Your task to perform on an android device: Show the shopping cart on ebay.com. Search for "usb-c to usb-a" on ebay.com, select the first entry, add it to the cart, then select checkout. Image 0: 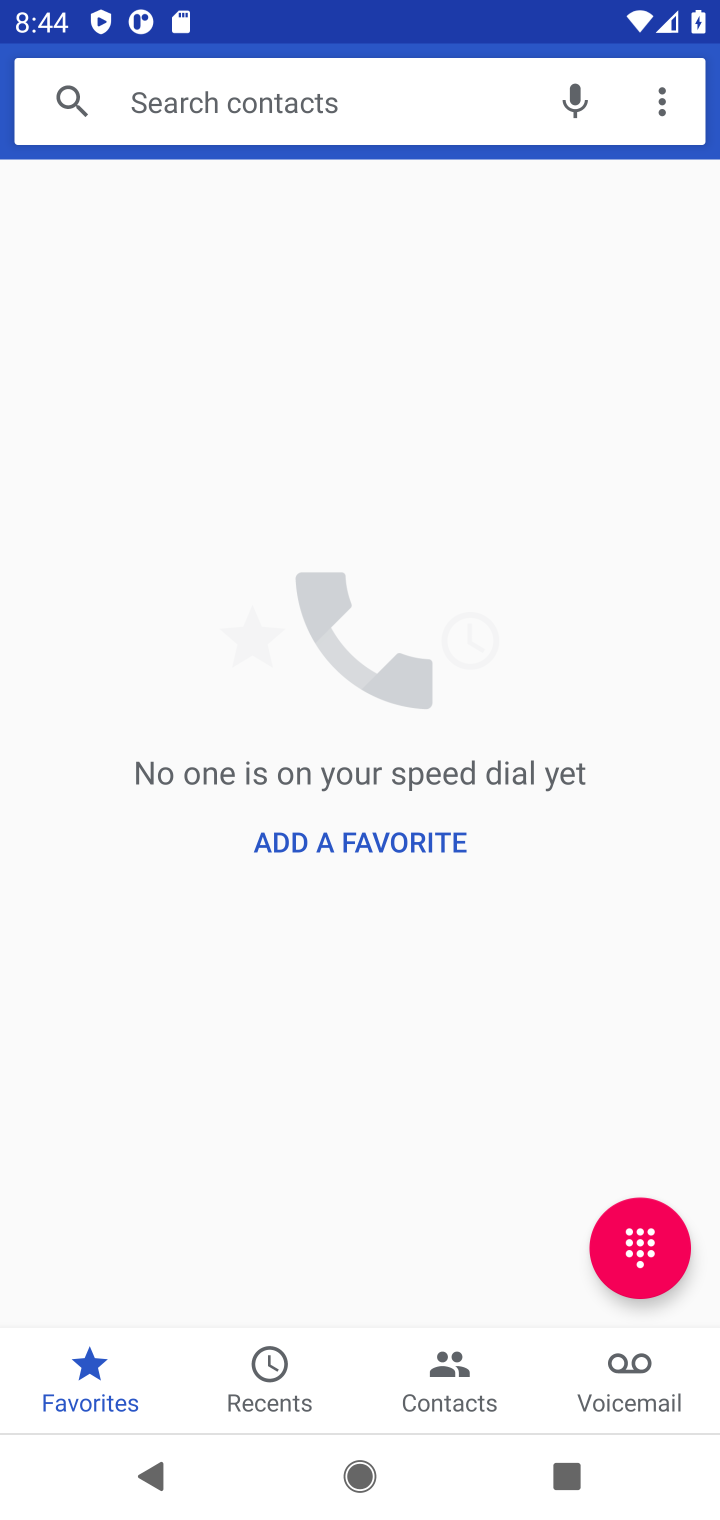
Step 0: press home button
Your task to perform on an android device: Show the shopping cart on ebay.com. Search for "usb-c to usb-a" on ebay.com, select the first entry, add it to the cart, then select checkout. Image 1: 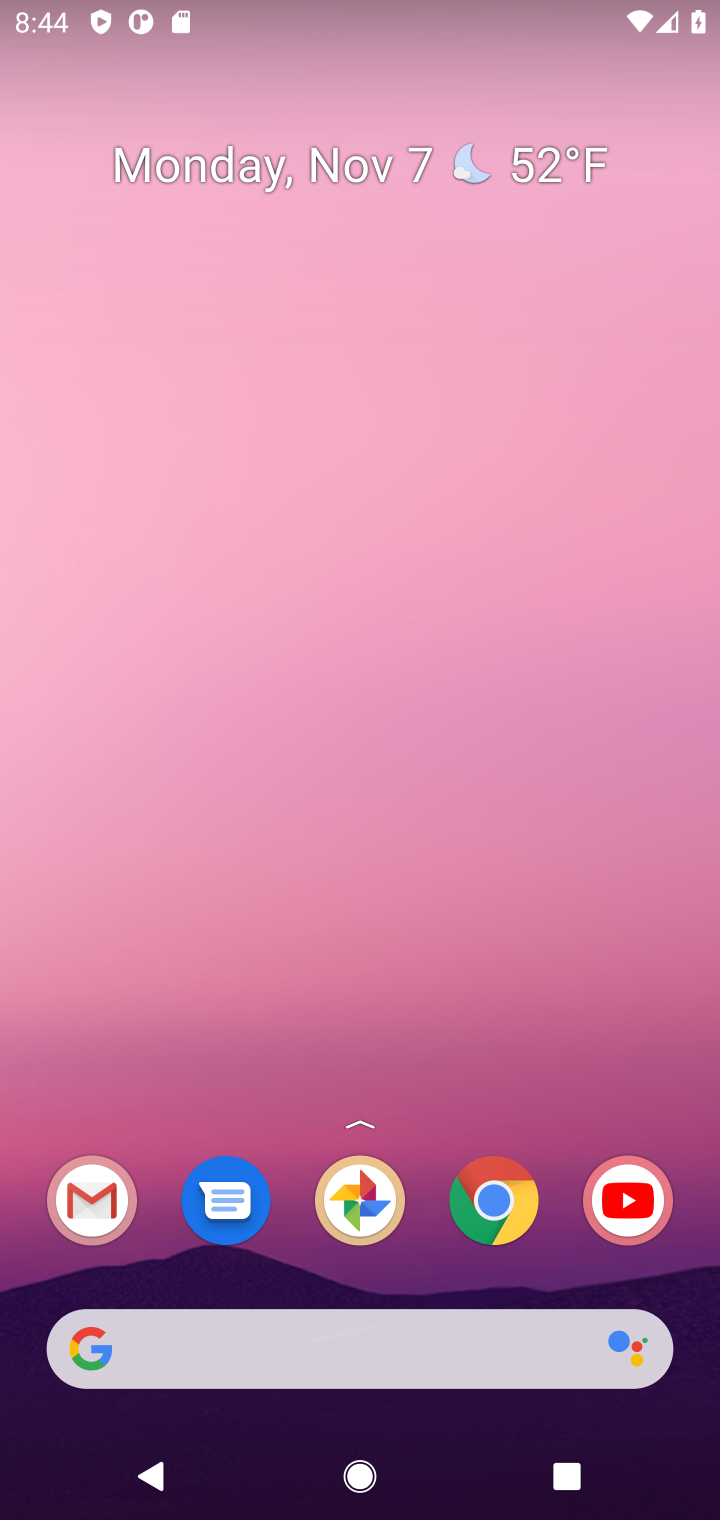
Step 1: click (494, 1220)
Your task to perform on an android device: Show the shopping cart on ebay.com. Search for "usb-c to usb-a" on ebay.com, select the first entry, add it to the cart, then select checkout. Image 2: 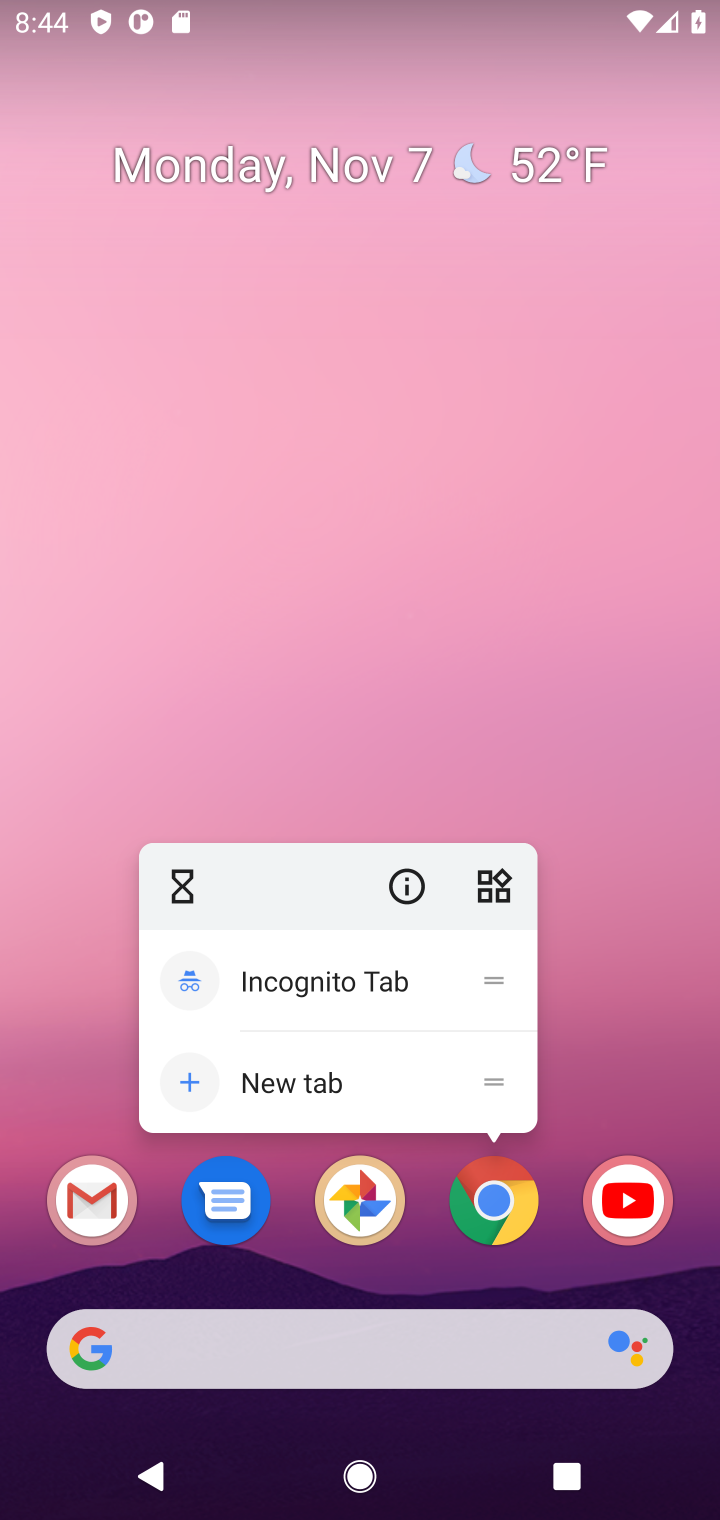
Step 2: click (494, 1196)
Your task to perform on an android device: Show the shopping cart on ebay.com. Search for "usb-c to usb-a" on ebay.com, select the first entry, add it to the cart, then select checkout. Image 3: 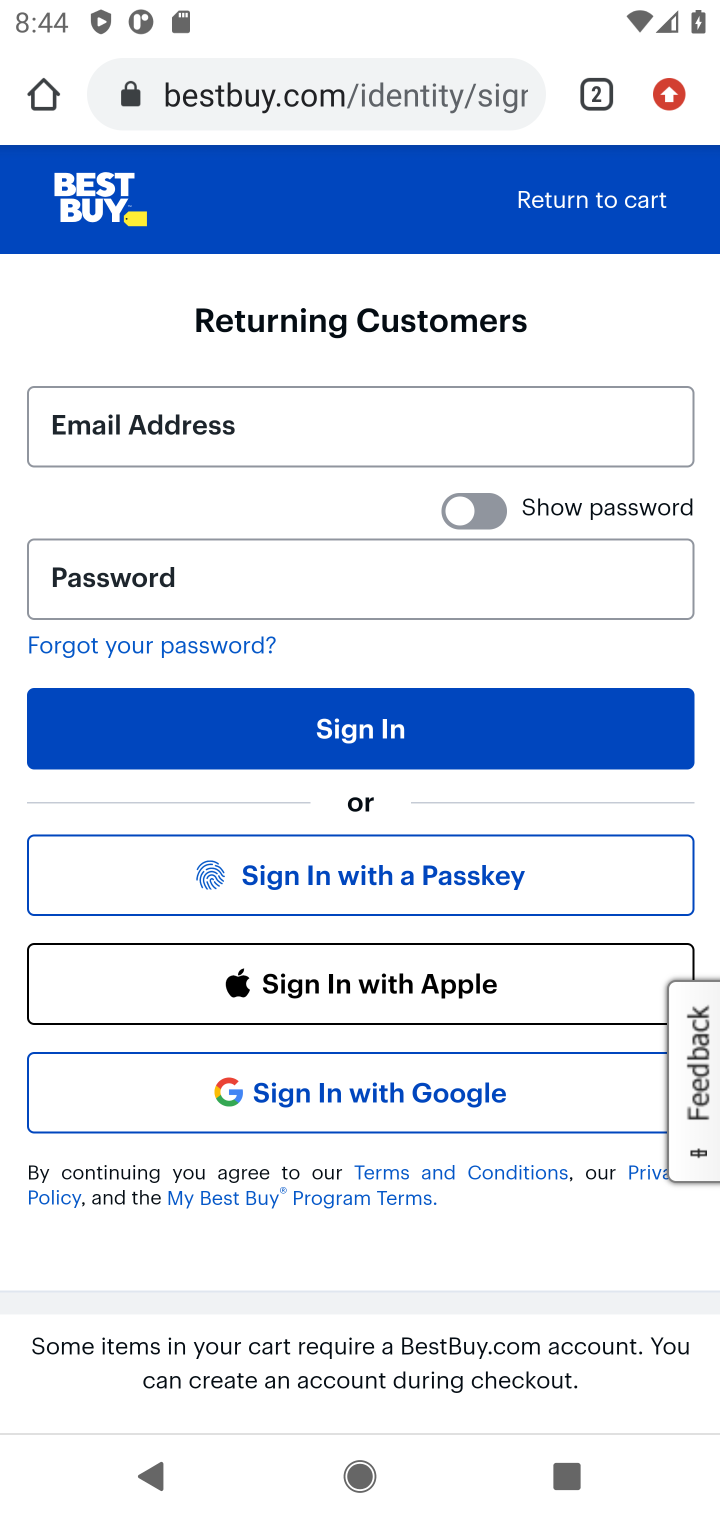
Step 3: click (379, 60)
Your task to perform on an android device: Show the shopping cart on ebay.com. Search for "usb-c to usb-a" on ebay.com, select the first entry, add it to the cart, then select checkout. Image 4: 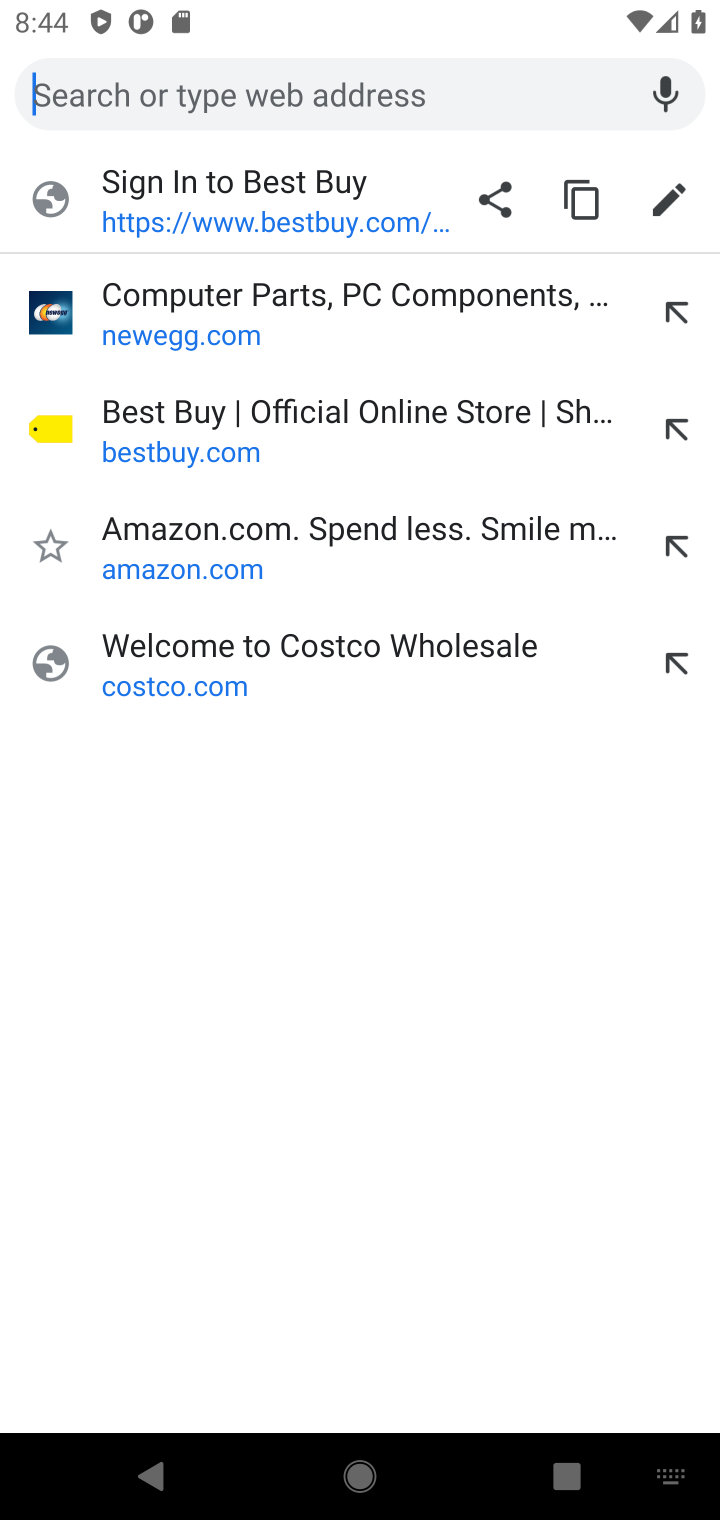
Step 4: type "ebay.com"
Your task to perform on an android device: Show the shopping cart on ebay.com. Search for "usb-c to usb-a" on ebay.com, select the first entry, add it to the cart, then select checkout. Image 5: 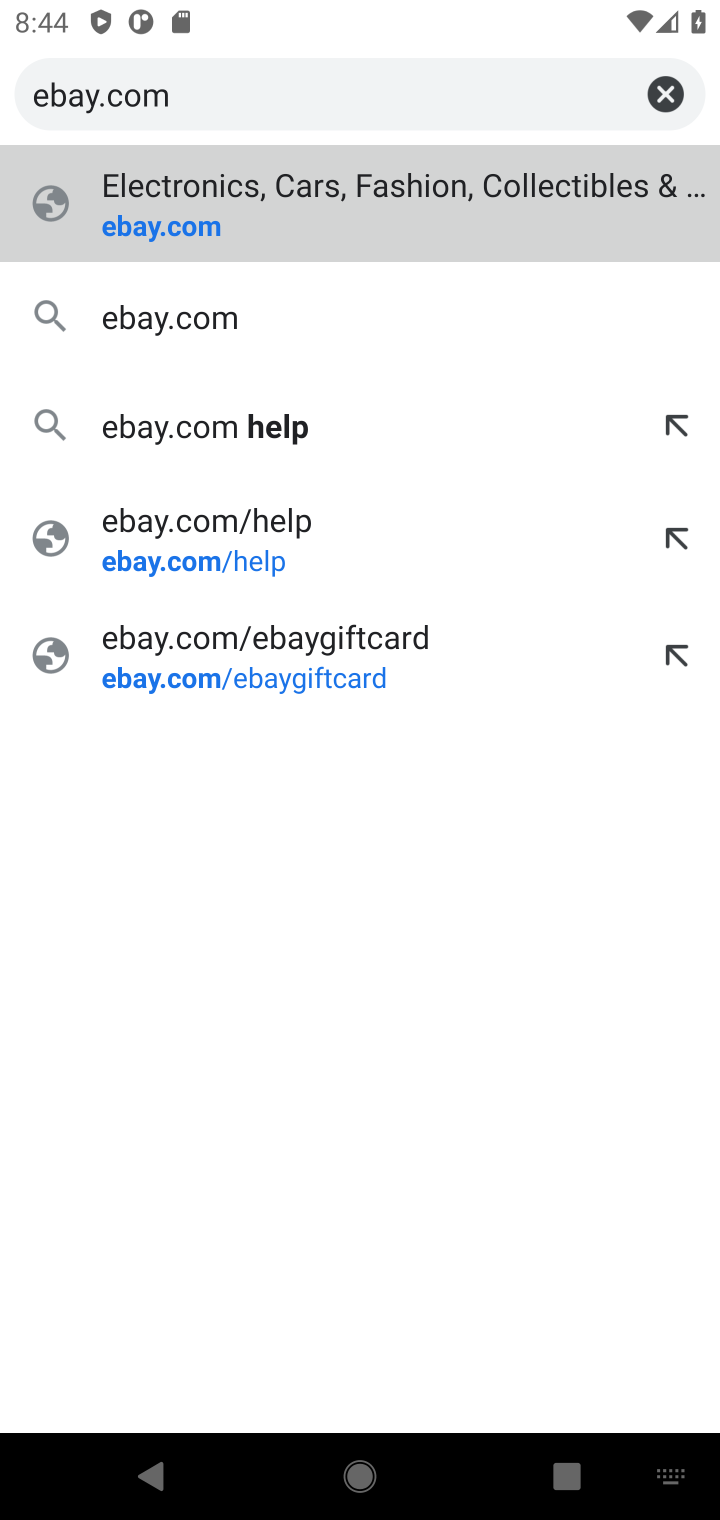
Step 5: press enter
Your task to perform on an android device: Show the shopping cart on ebay.com. Search for "usb-c to usb-a" on ebay.com, select the first entry, add it to the cart, then select checkout. Image 6: 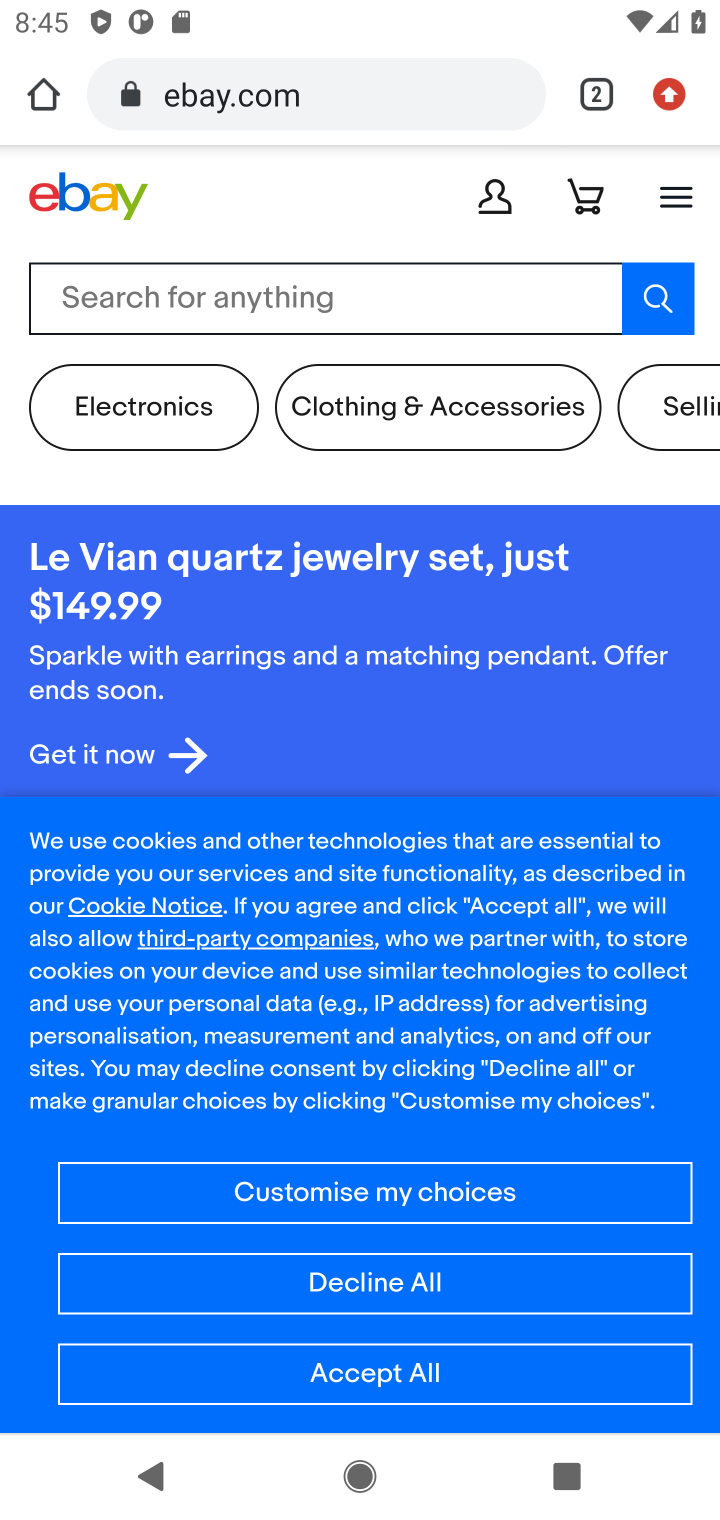
Step 6: click (268, 302)
Your task to perform on an android device: Show the shopping cart on ebay.com. Search for "usb-c to usb-a" on ebay.com, select the first entry, add it to the cart, then select checkout. Image 7: 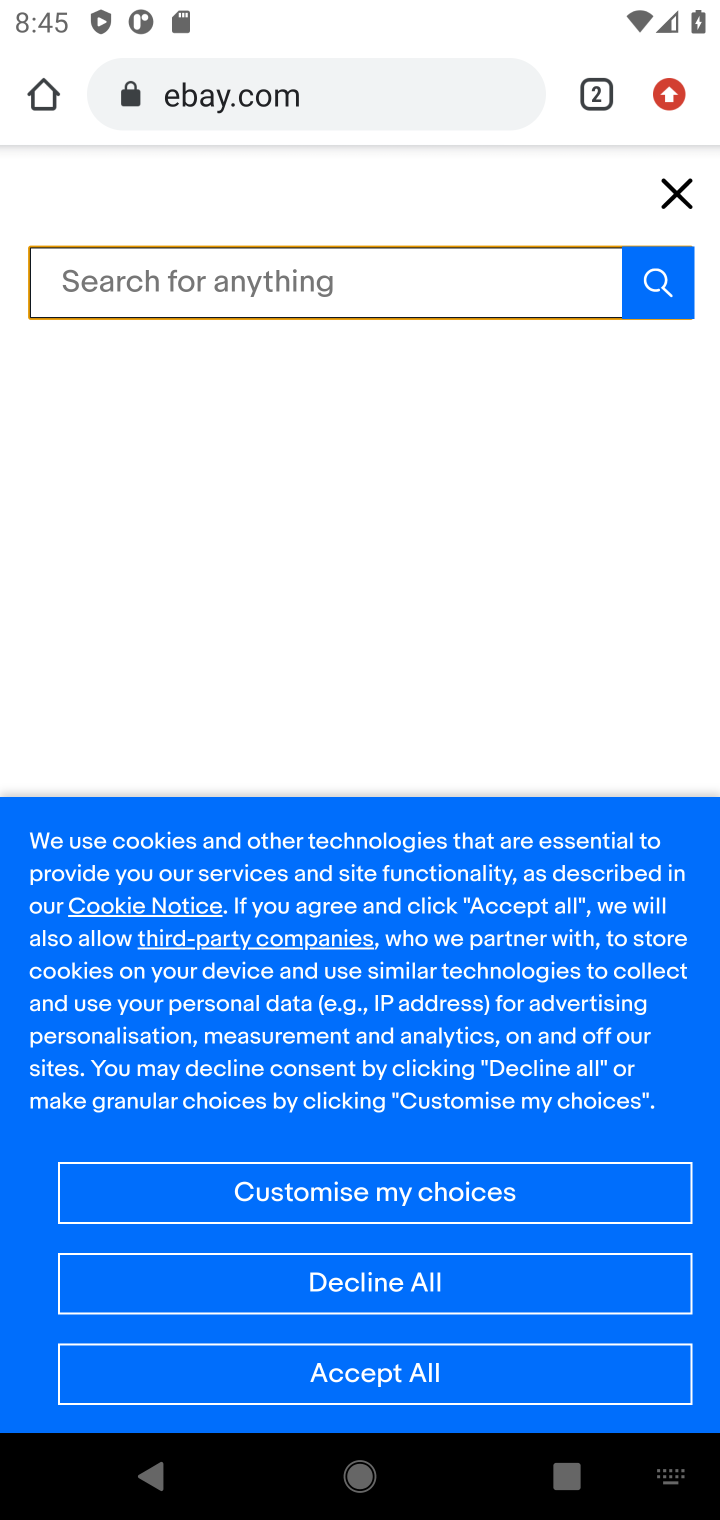
Step 7: type "usb-c to usb-a"
Your task to perform on an android device: Show the shopping cart on ebay.com. Search for "usb-c to usb-a" on ebay.com, select the first entry, add it to the cart, then select checkout. Image 8: 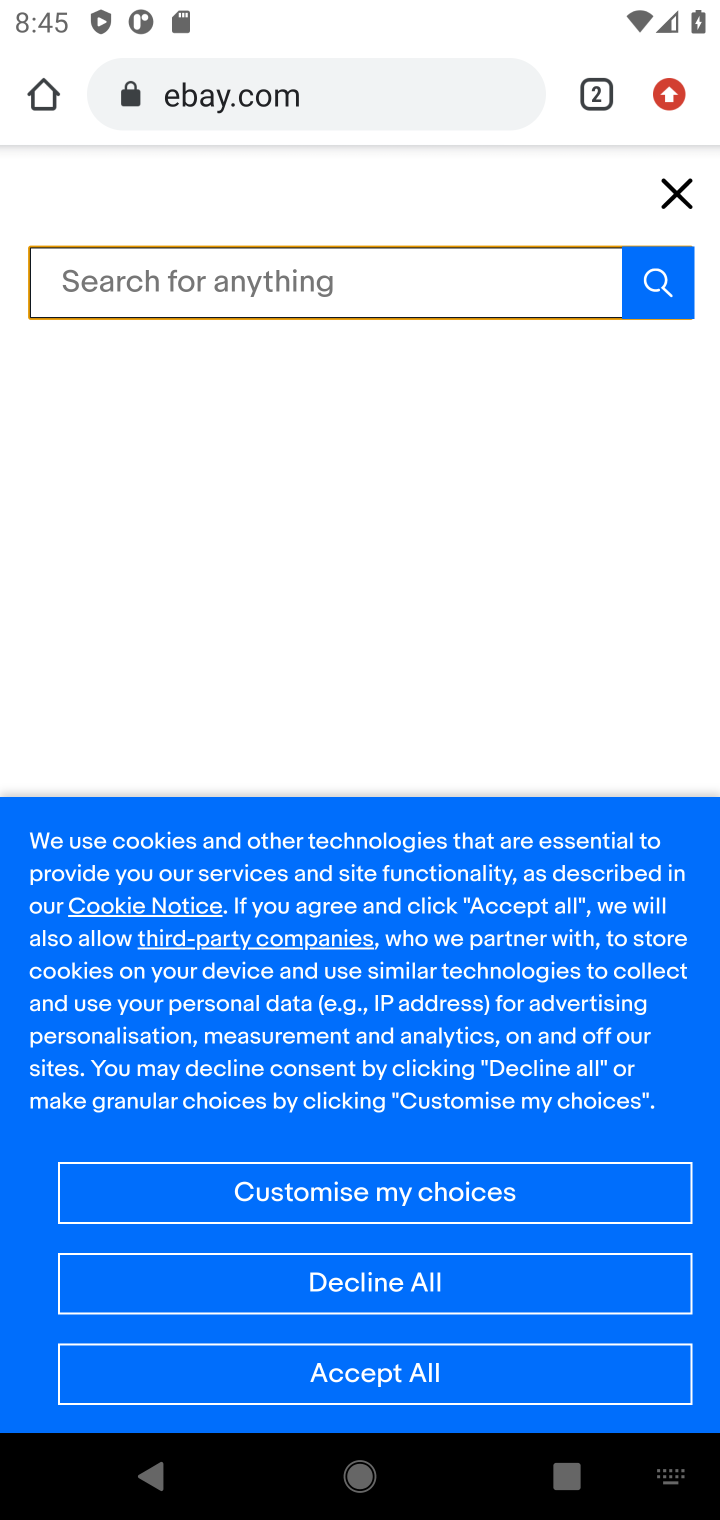
Step 8: click (414, 1384)
Your task to perform on an android device: Show the shopping cart on ebay.com. Search for "usb-c to usb-a" on ebay.com, select the first entry, add it to the cart, then select checkout. Image 9: 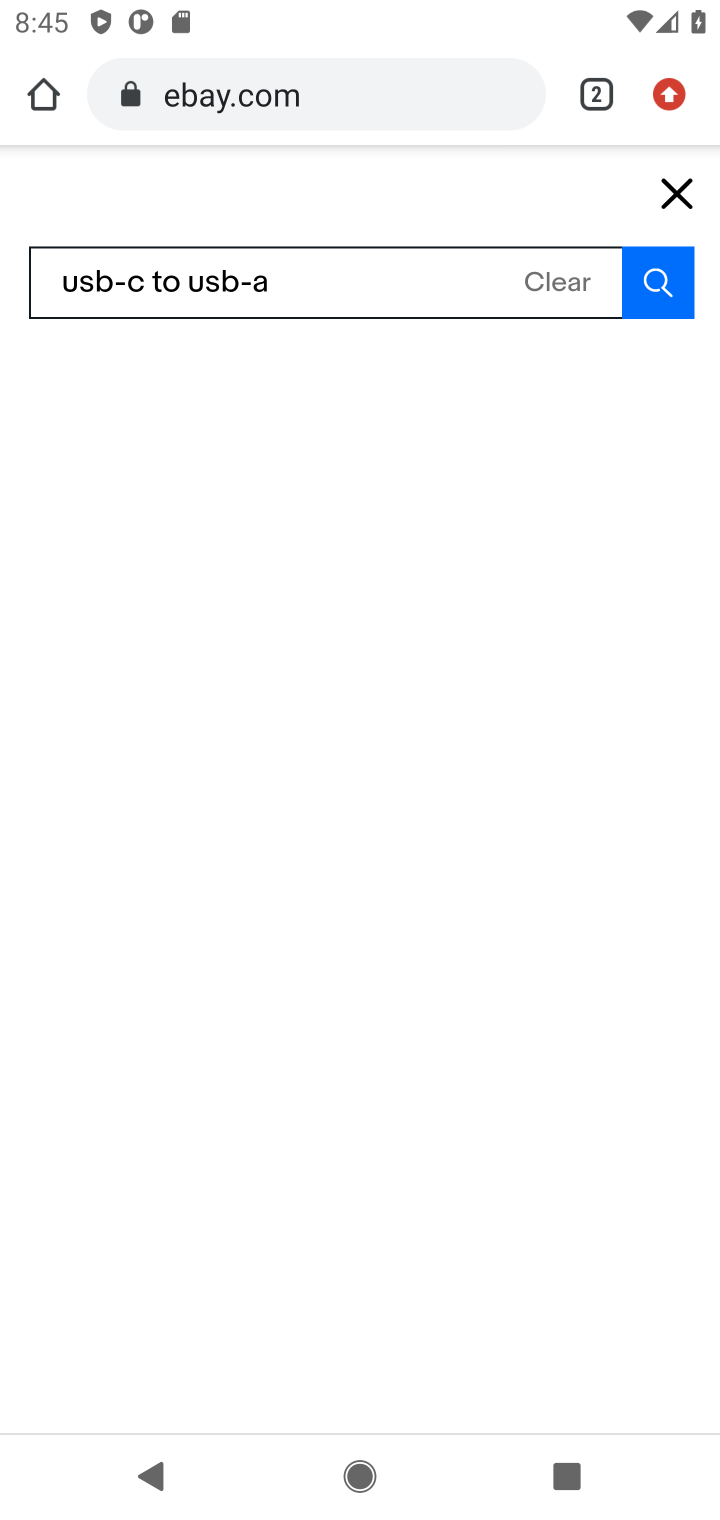
Step 9: click (665, 291)
Your task to perform on an android device: Show the shopping cart on ebay.com. Search for "usb-c to usb-a" on ebay.com, select the first entry, add it to the cart, then select checkout. Image 10: 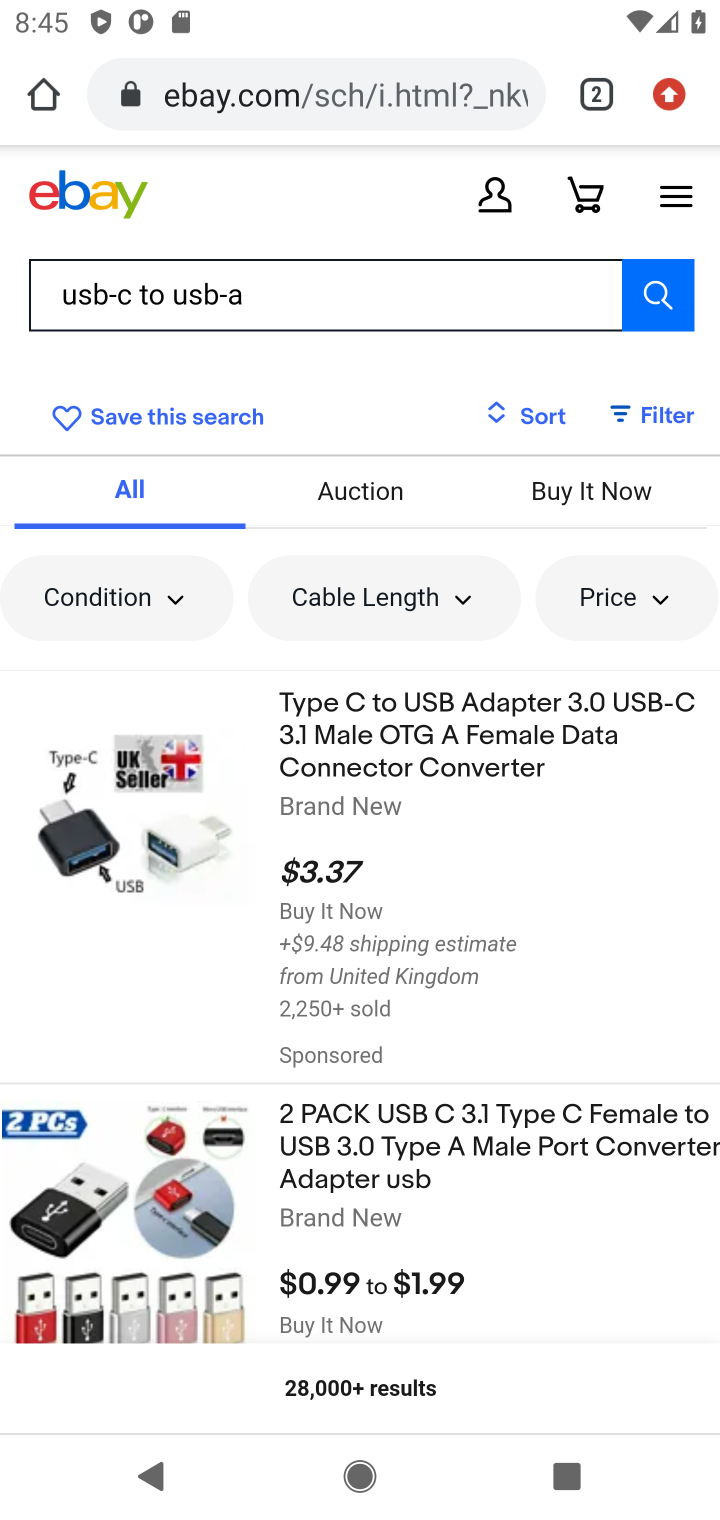
Step 10: drag from (605, 810) to (600, 713)
Your task to perform on an android device: Show the shopping cart on ebay.com. Search for "usb-c to usb-a" on ebay.com, select the first entry, add it to the cart, then select checkout. Image 11: 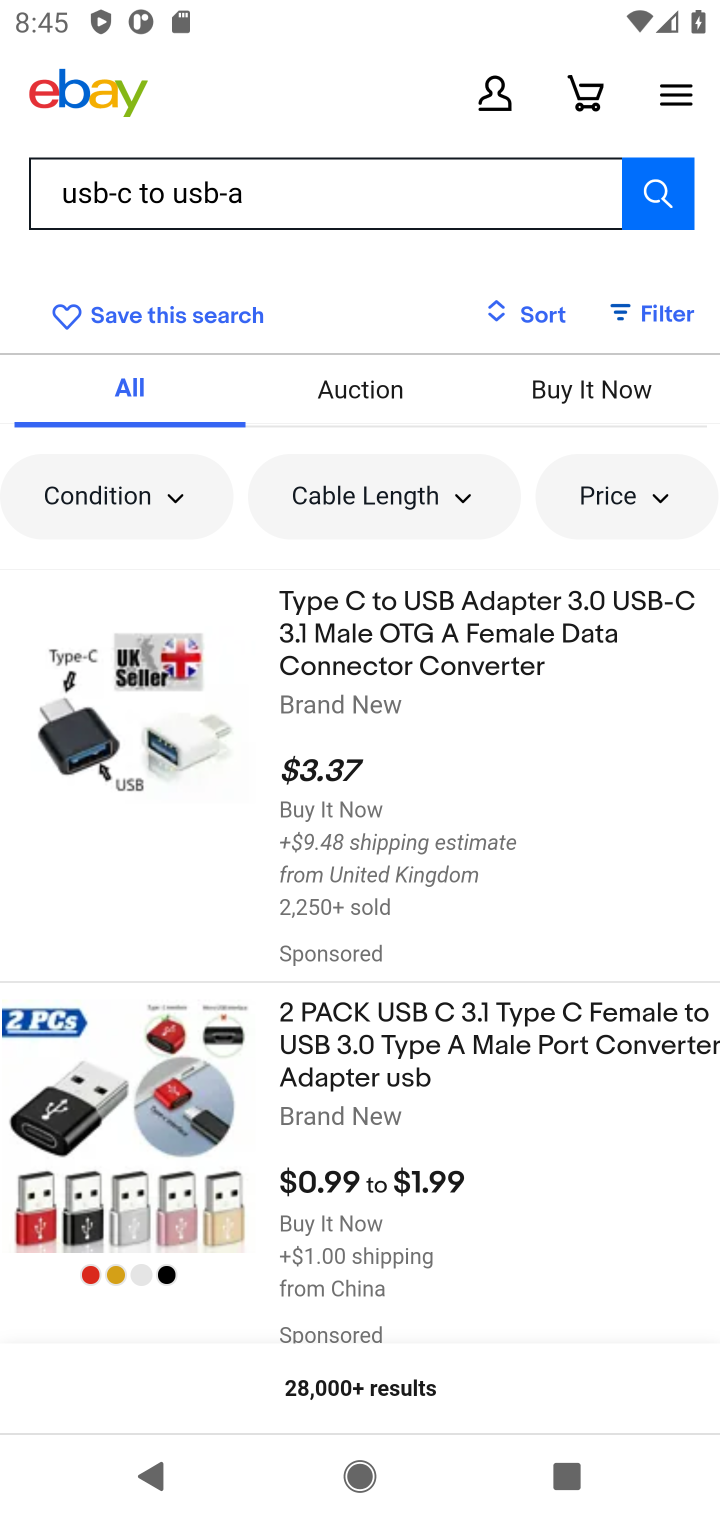
Step 11: click (450, 654)
Your task to perform on an android device: Show the shopping cart on ebay.com. Search for "usb-c to usb-a" on ebay.com, select the first entry, add it to the cart, then select checkout. Image 12: 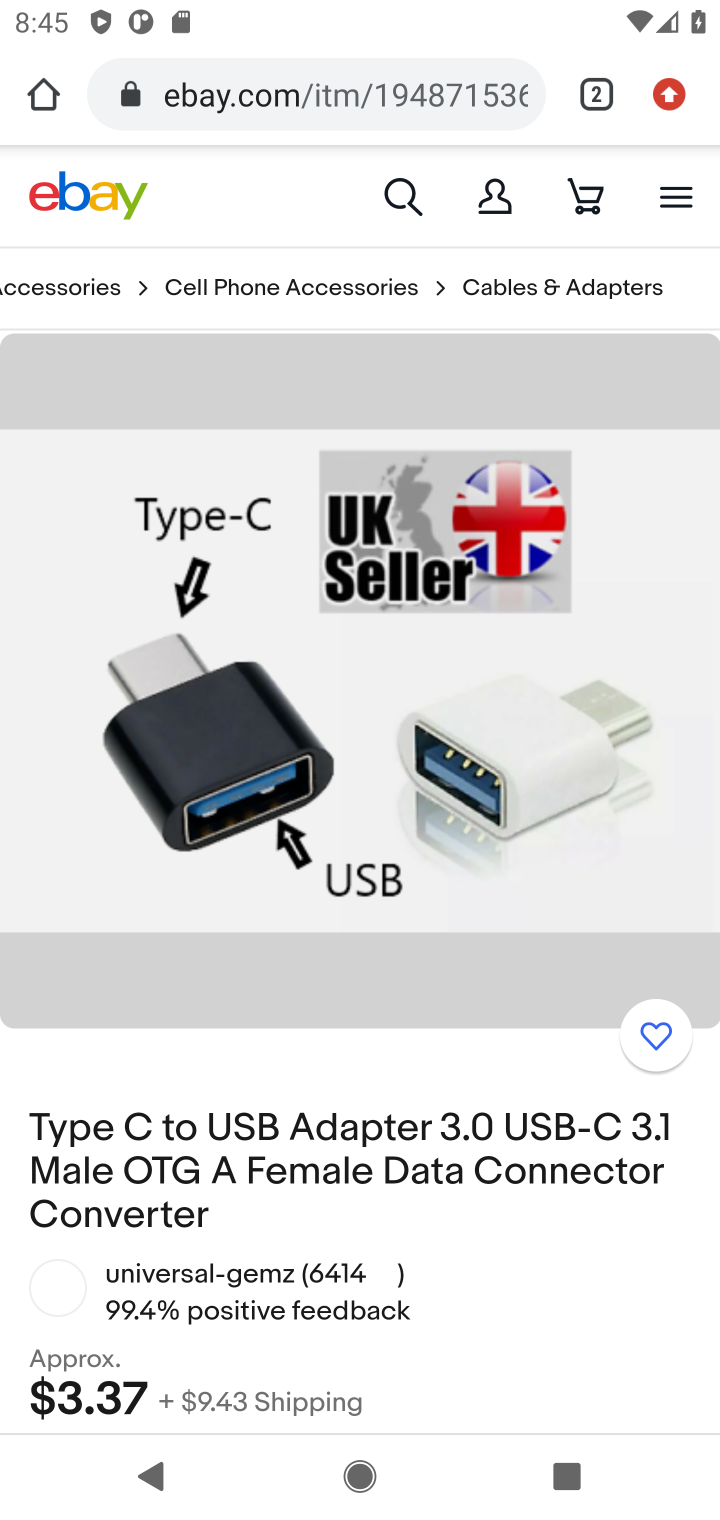
Step 12: drag from (597, 1182) to (574, 374)
Your task to perform on an android device: Show the shopping cart on ebay.com. Search for "usb-c to usb-a" on ebay.com, select the first entry, add it to the cart, then select checkout. Image 13: 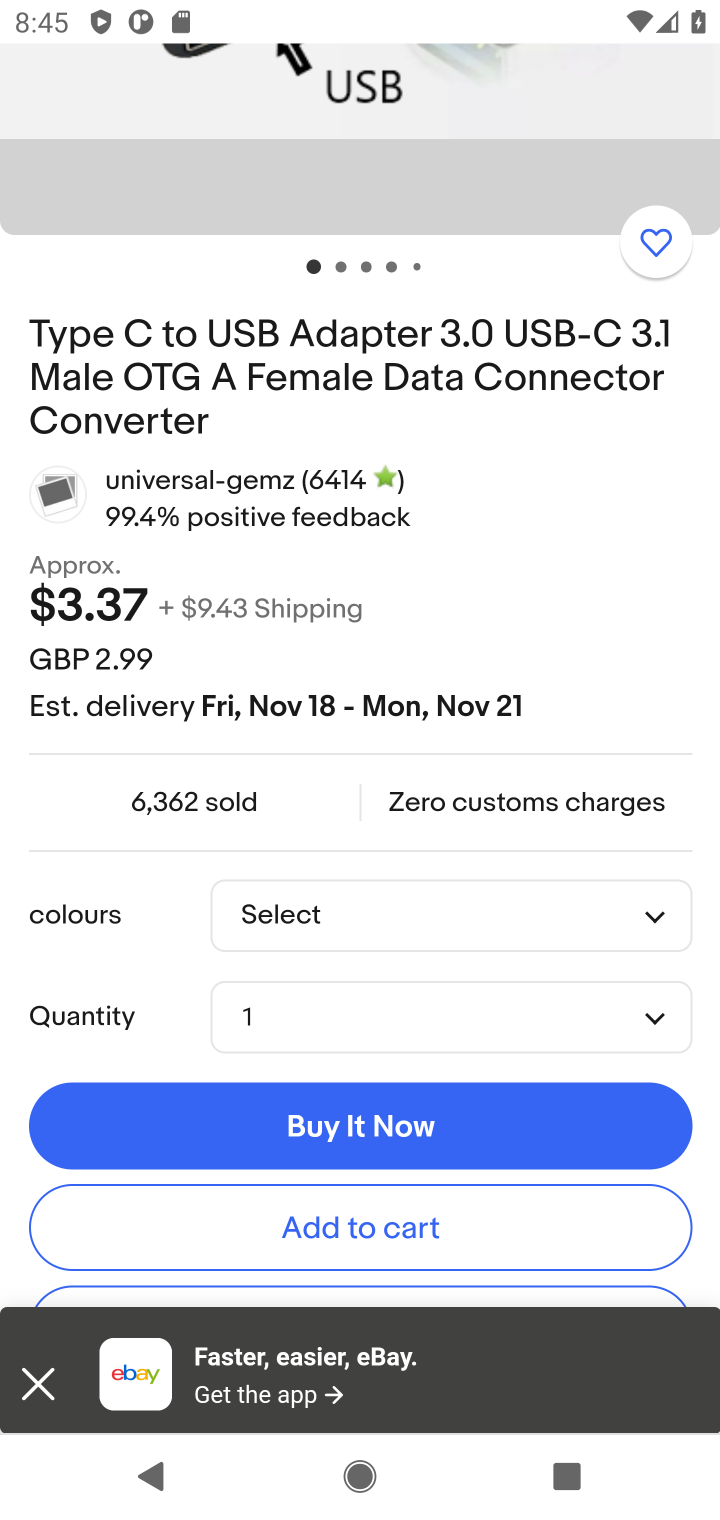
Step 13: click (470, 1224)
Your task to perform on an android device: Show the shopping cart on ebay.com. Search for "usb-c to usb-a" on ebay.com, select the first entry, add it to the cart, then select checkout. Image 14: 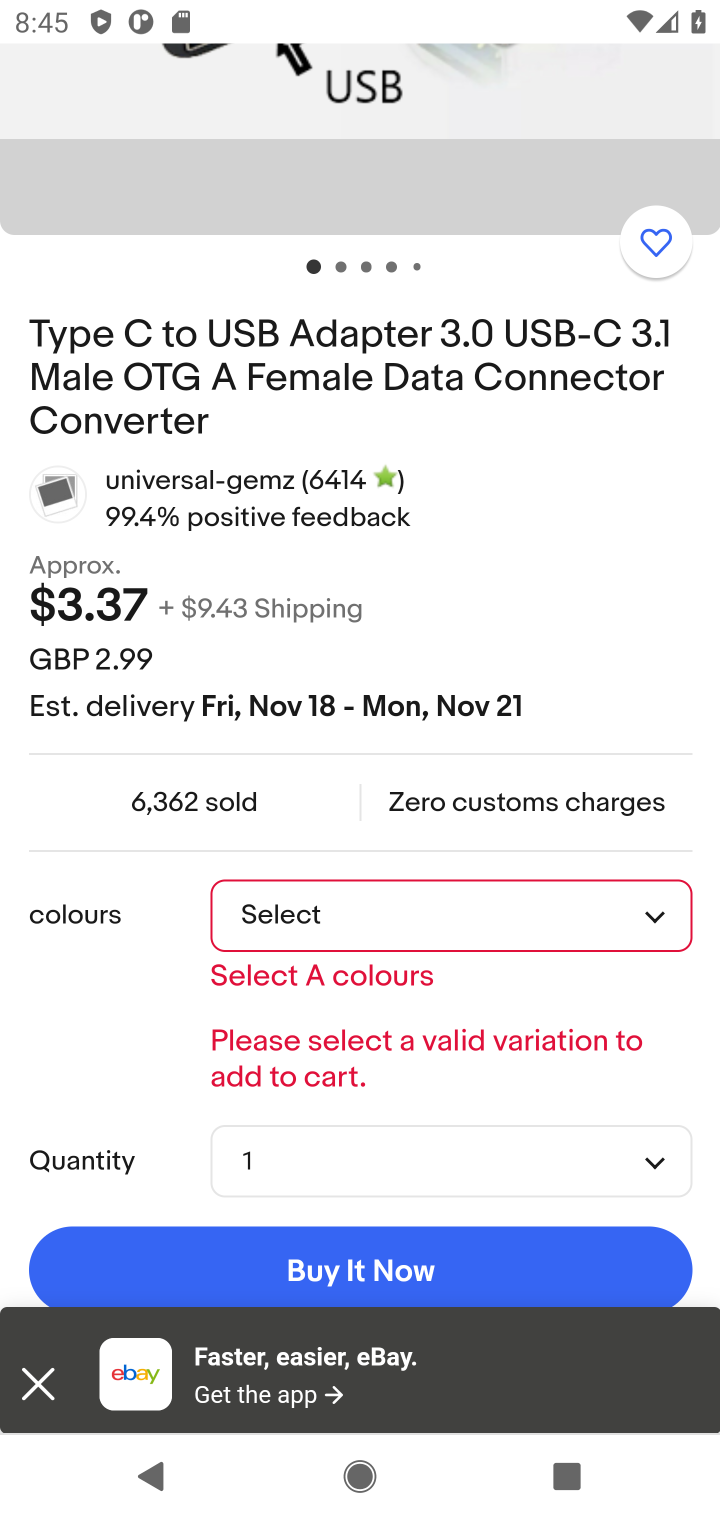
Step 14: click (464, 915)
Your task to perform on an android device: Show the shopping cart on ebay.com. Search for "usb-c to usb-a" on ebay.com, select the first entry, add it to the cart, then select checkout. Image 15: 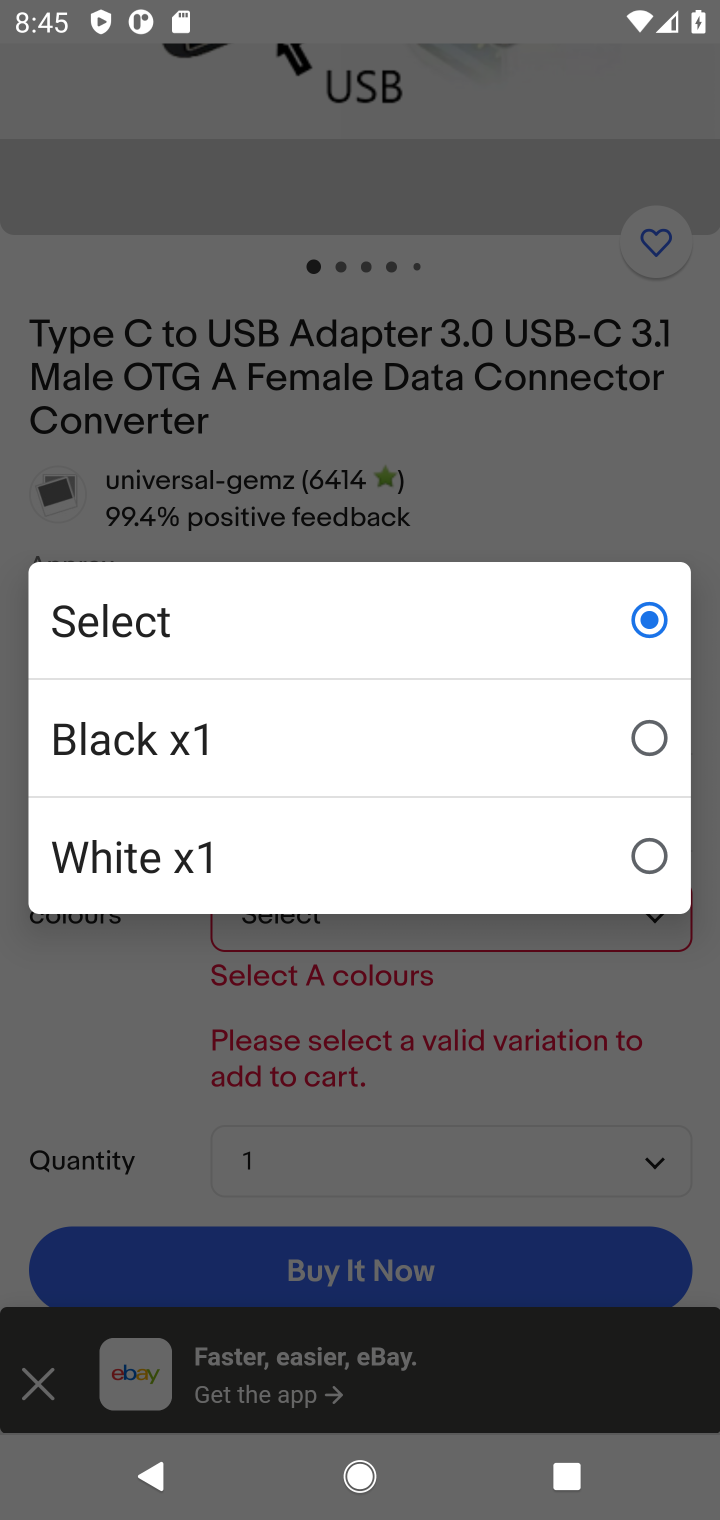
Step 15: click (370, 755)
Your task to perform on an android device: Show the shopping cart on ebay.com. Search for "usb-c to usb-a" on ebay.com, select the first entry, add it to the cart, then select checkout. Image 16: 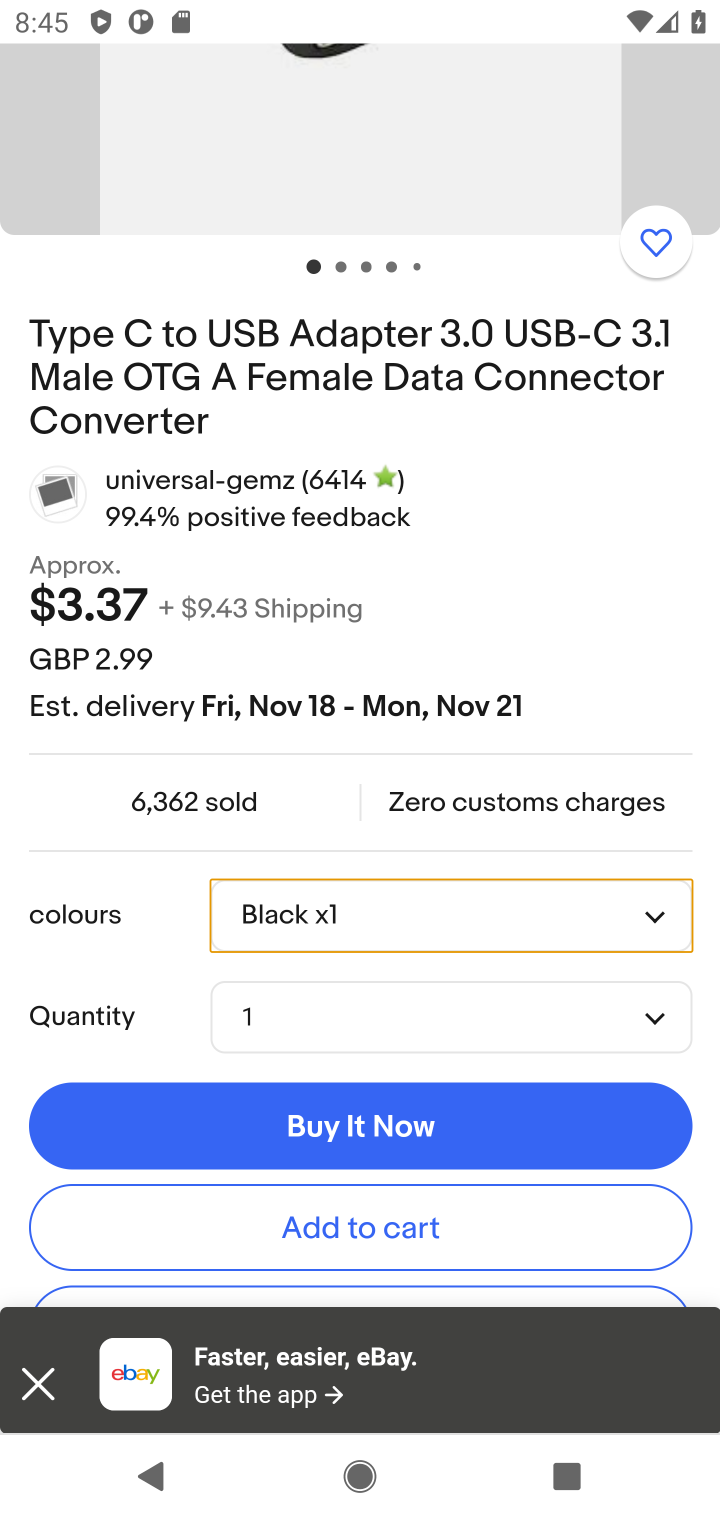
Step 16: click (427, 1245)
Your task to perform on an android device: Show the shopping cart on ebay.com. Search for "usb-c to usb-a" on ebay.com, select the first entry, add it to the cart, then select checkout. Image 17: 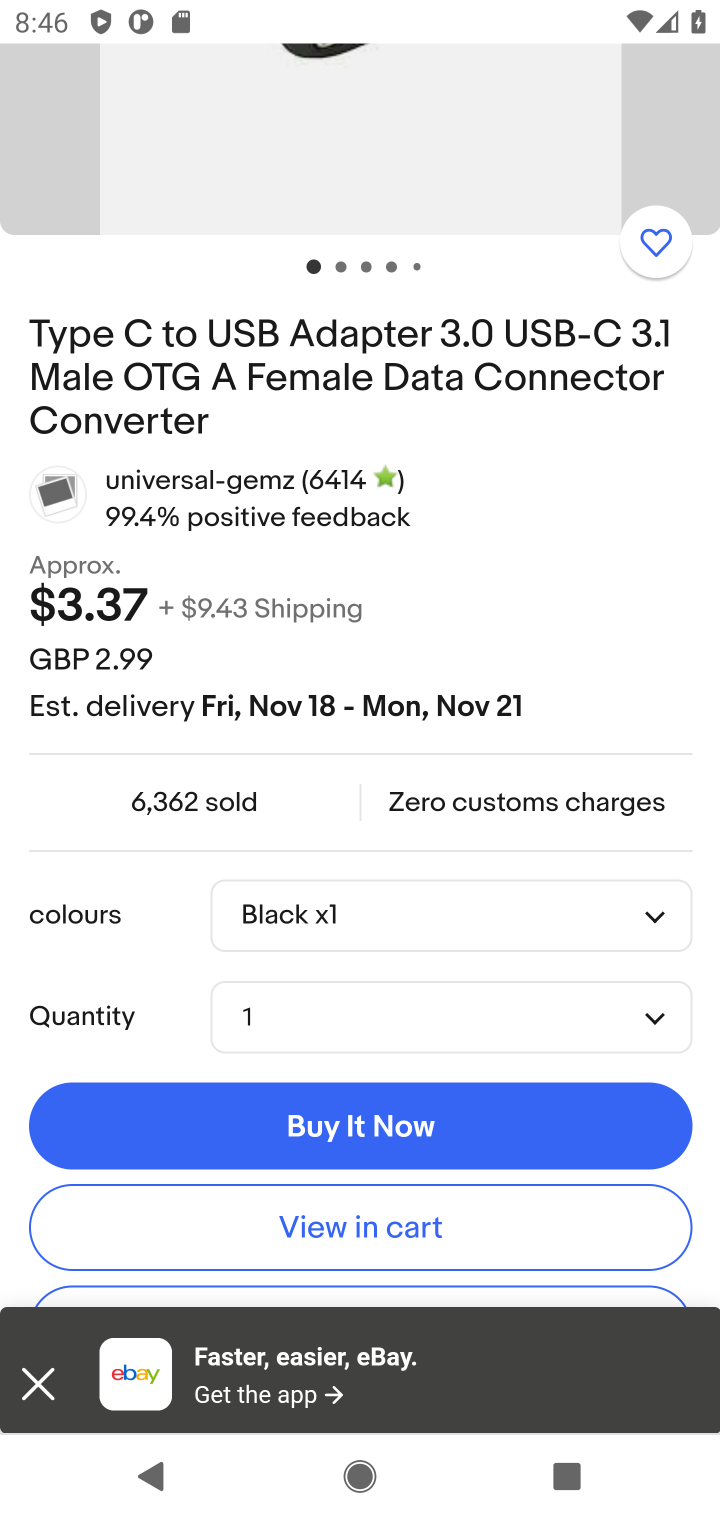
Step 17: click (416, 1244)
Your task to perform on an android device: Show the shopping cart on ebay.com. Search for "usb-c to usb-a" on ebay.com, select the first entry, add it to the cart, then select checkout. Image 18: 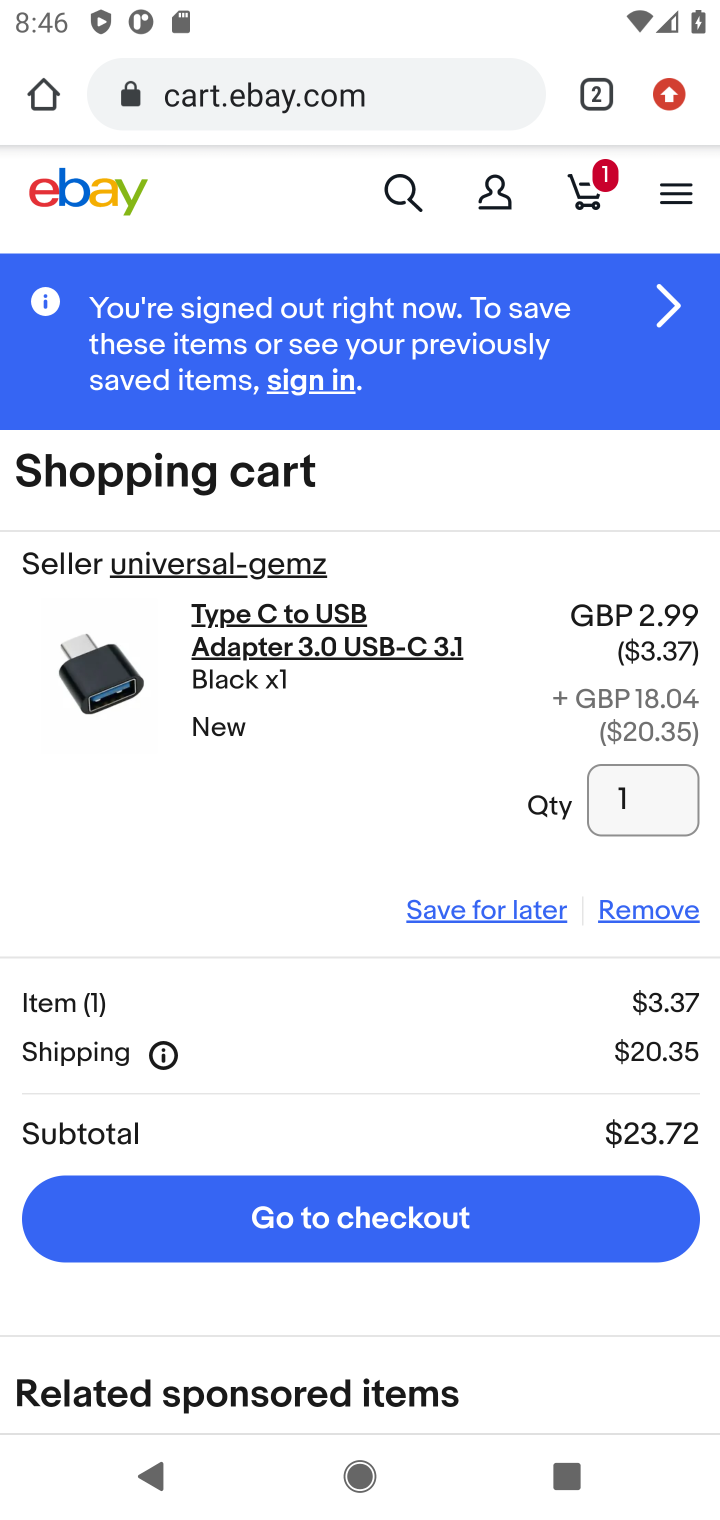
Step 18: task complete